Your task to perform on an android device: Go to settings Image 0: 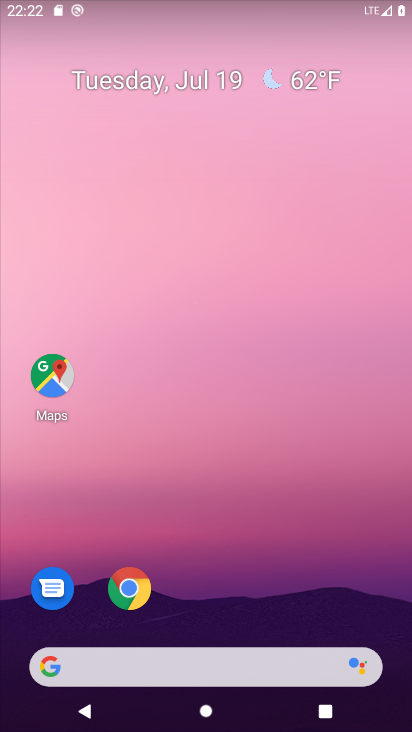
Step 0: drag from (162, 609) to (163, 223)
Your task to perform on an android device: Go to settings Image 1: 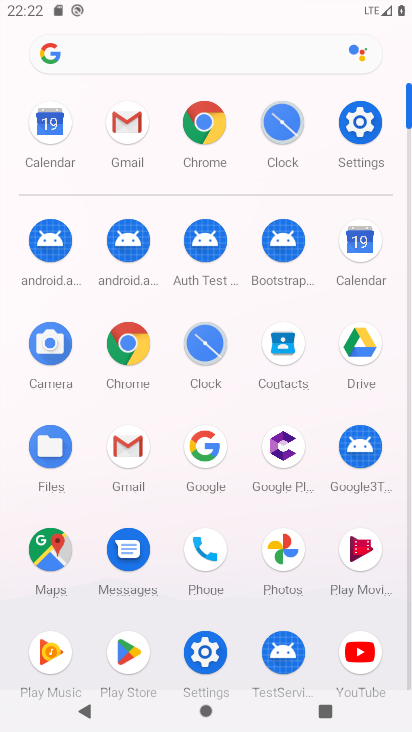
Step 1: click (366, 131)
Your task to perform on an android device: Go to settings Image 2: 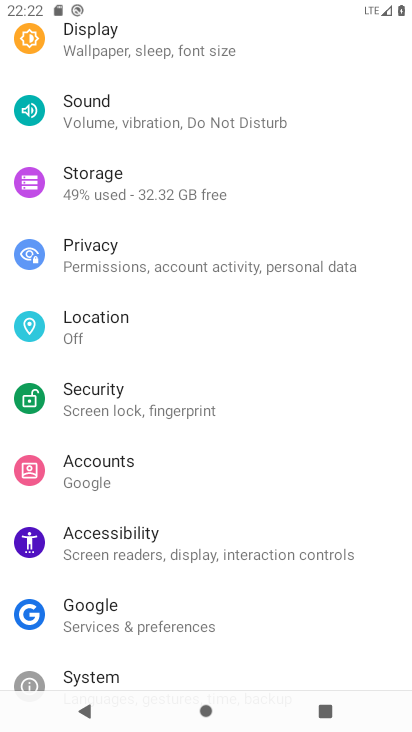
Step 2: task complete